Your task to perform on an android device: open chrome and create a bookmark for the current page Image 0: 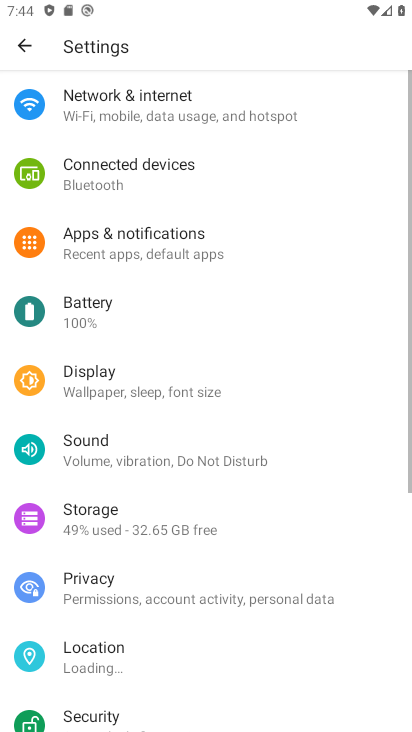
Step 0: drag from (209, 642) to (390, 318)
Your task to perform on an android device: open chrome and create a bookmark for the current page Image 1: 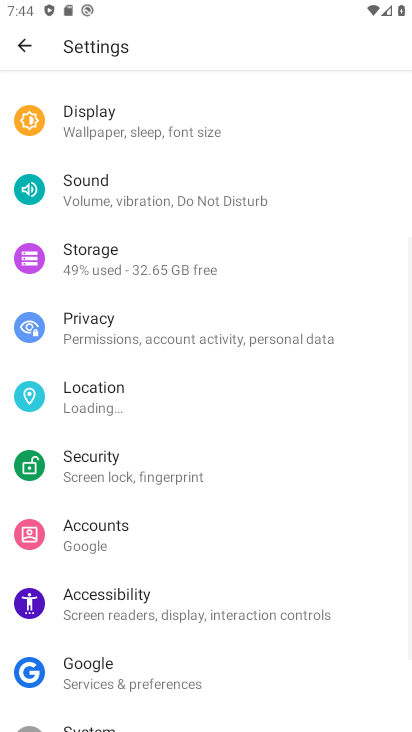
Step 1: press home button
Your task to perform on an android device: open chrome and create a bookmark for the current page Image 2: 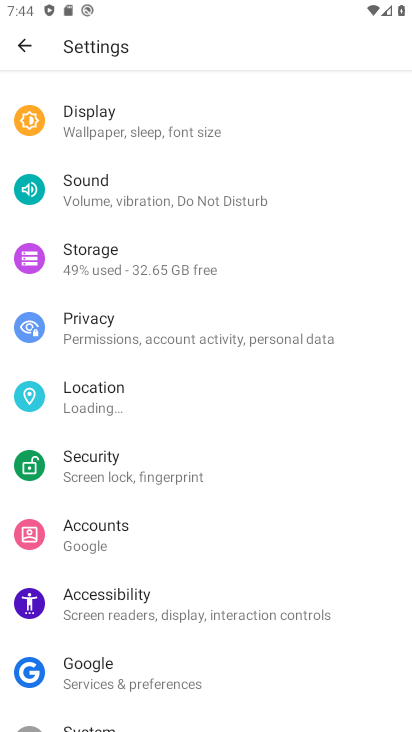
Step 2: drag from (390, 318) to (404, 471)
Your task to perform on an android device: open chrome and create a bookmark for the current page Image 3: 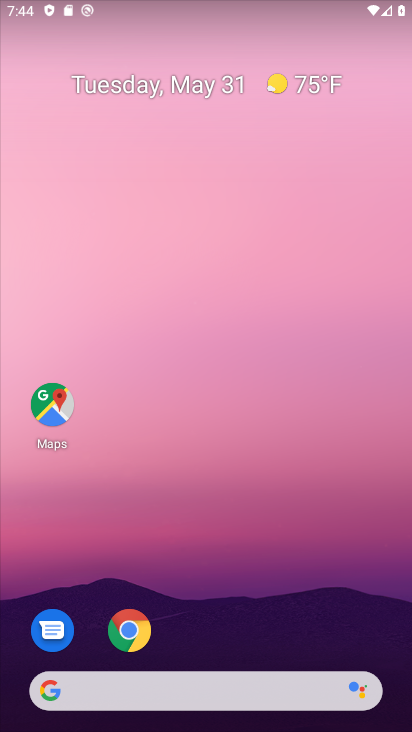
Step 3: drag from (223, 677) to (292, 223)
Your task to perform on an android device: open chrome and create a bookmark for the current page Image 4: 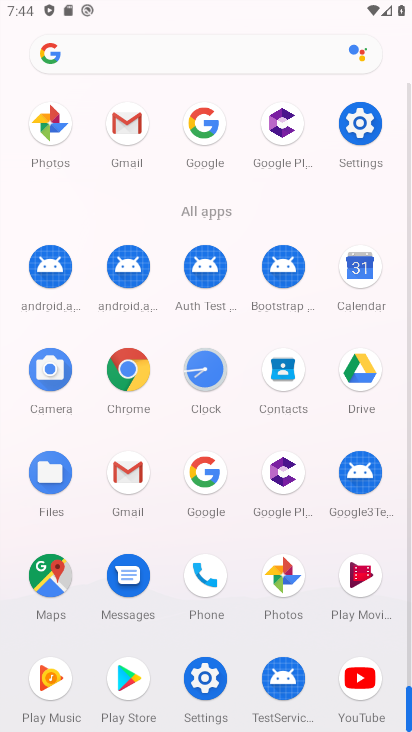
Step 4: click (116, 387)
Your task to perform on an android device: open chrome and create a bookmark for the current page Image 5: 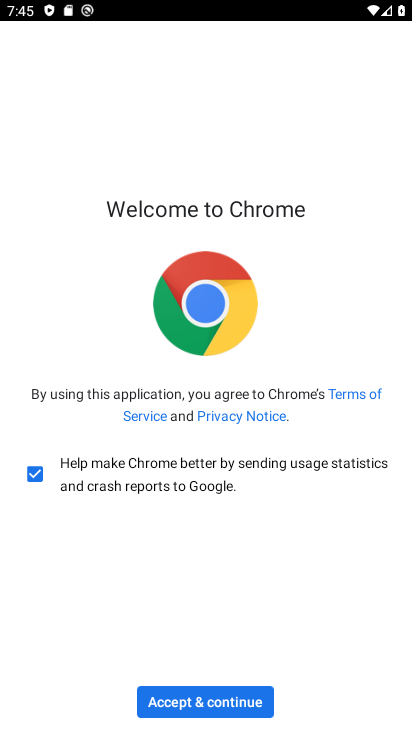
Step 5: click (214, 698)
Your task to perform on an android device: open chrome and create a bookmark for the current page Image 6: 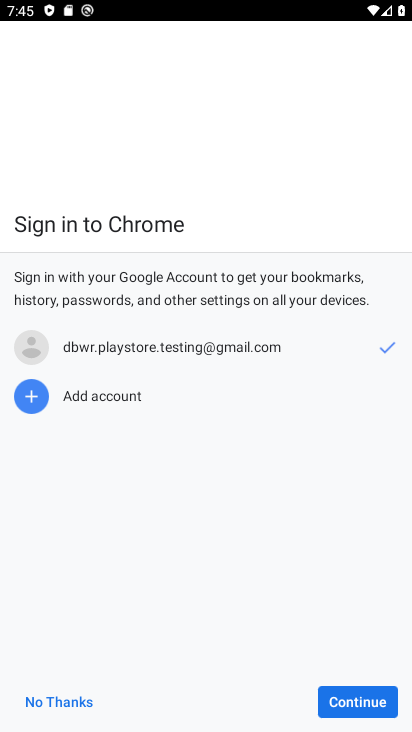
Step 6: click (342, 702)
Your task to perform on an android device: open chrome and create a bookmark for the current page Image 7: 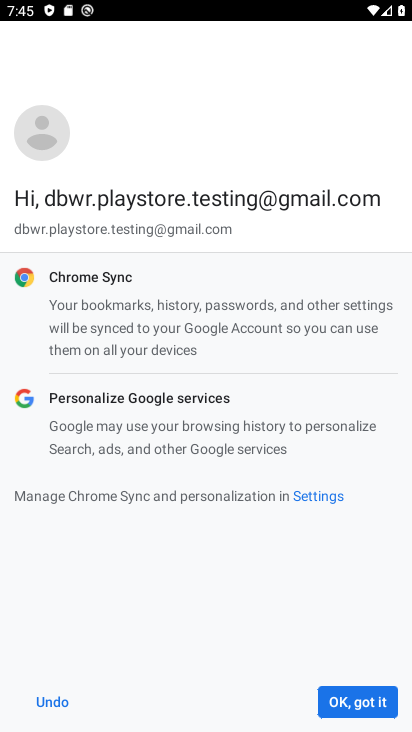
Step 7: click (338, 700)
Your task to perform on an android device: open chrome and create a bookmark for the current page Image 8: 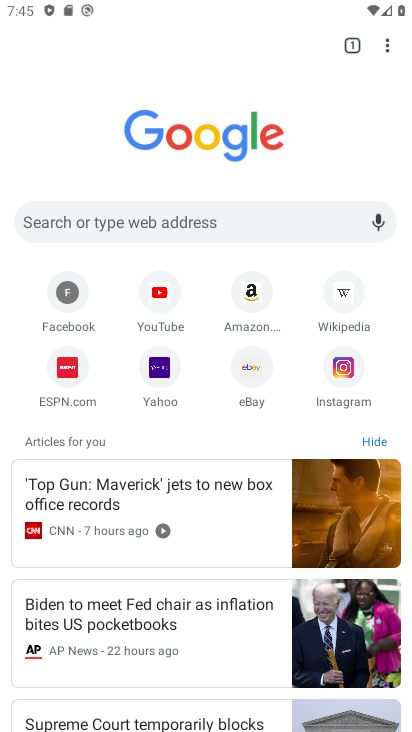
Step 8: click (392, 49)
Your task to perform on an android device: open chrome and create a bookmark for the current page Image 9: 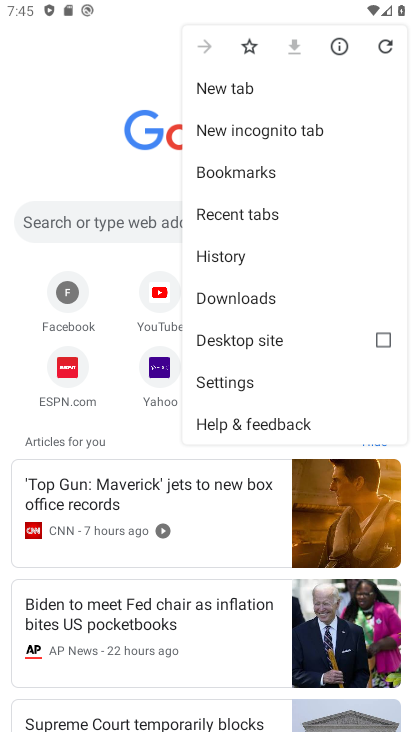
Step 9: click (245, 48)
Your task to perform on an android device: open chrome and create a bookmark for the current page Image 10: 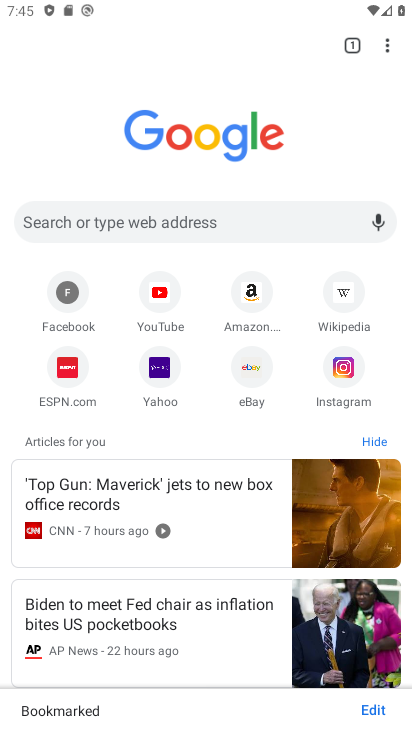
Step 10: task complete